Your task to perform on an android device: Search for "bose soundsport free" on walmart.com, select the first entry, and add it to the cart. Image 0: 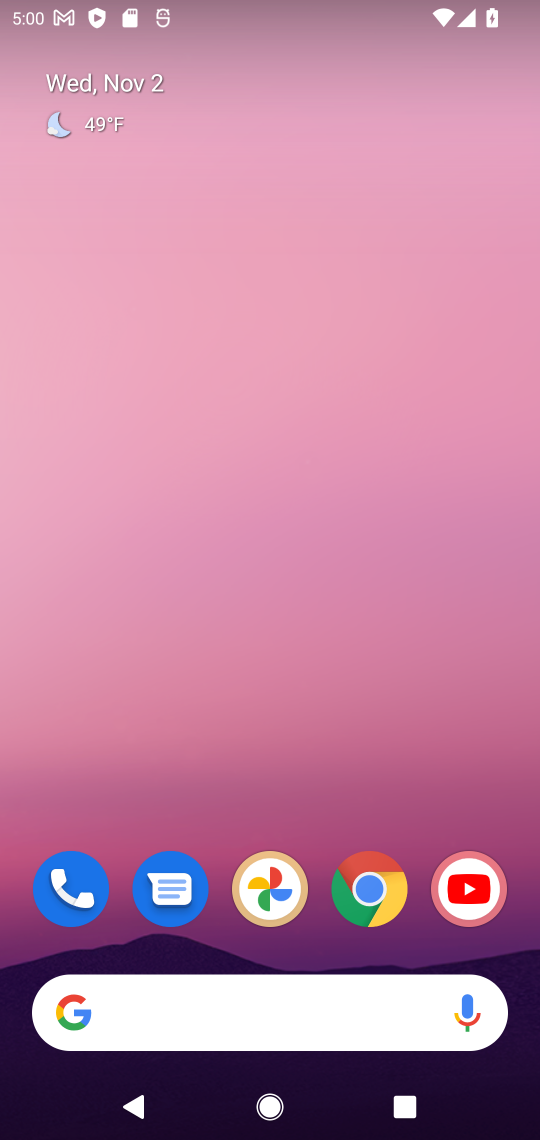
Step 0: click (389, 890)
Your task to perform on an android device: Search for "bose soundsport free" on walmart.com, select the first entry, and add it to the cart. Image 1: 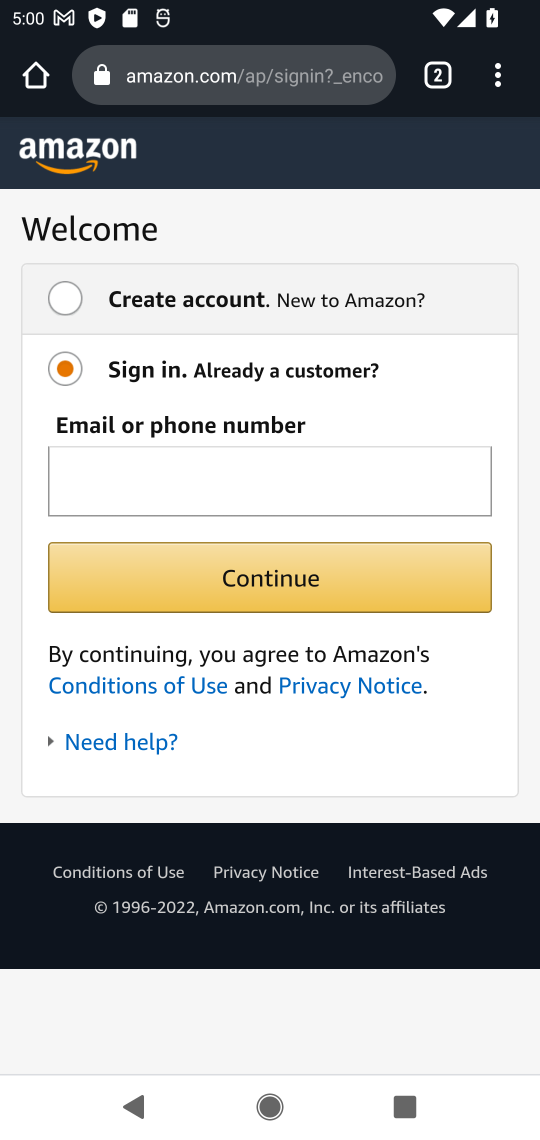
Step 1: click (261, 79)
Your task to perform on an android device: Search for "bose soundsport free" on walmart.com, select the first entry, and add it to the cart. Image 2: 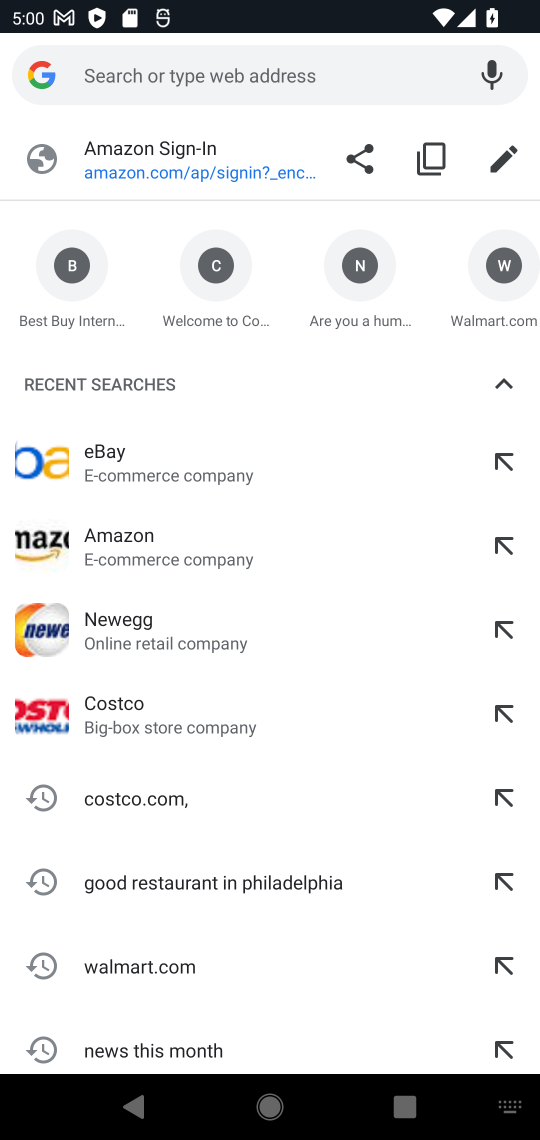
Step 2: click (511, 262)
Your task to perform on an android device: Search for "bose soundsport free" on walmart.com, select the first entry, and add it to the cart. Image 3: 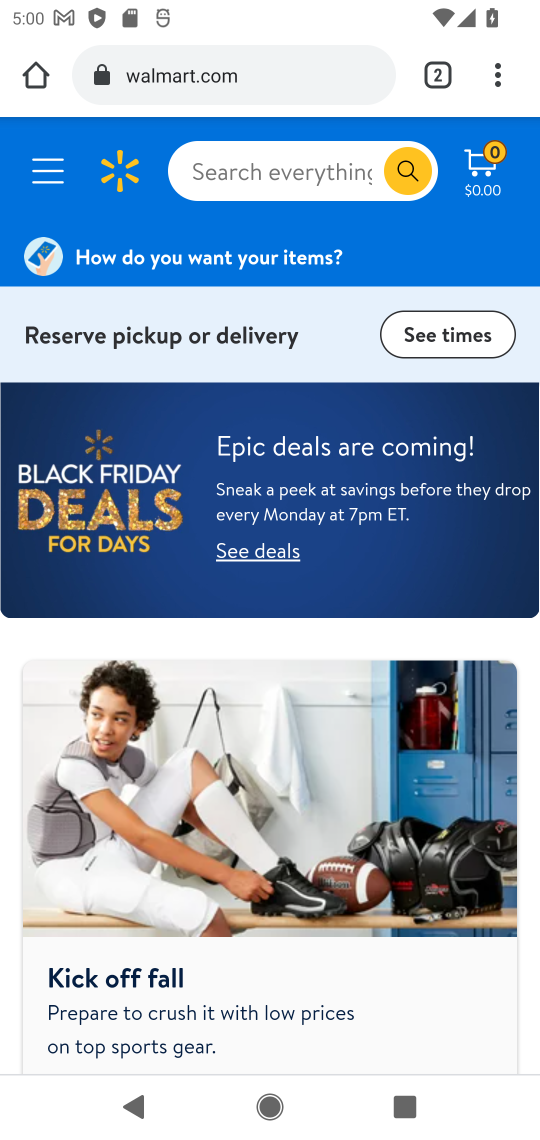
Step 3: click (243, 160)
Your task to perform on an android device: Search for "bose soundsport free" on walmart.com, select the first entry, and add it to the cart. Image 4: 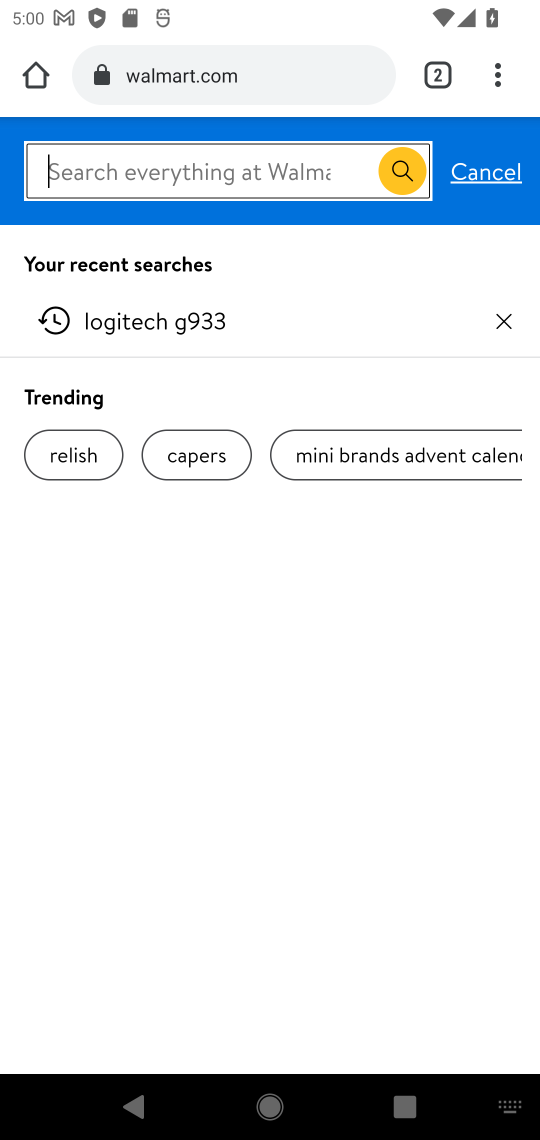
Step 4: type "bose soundsport free"
Your task to perform on an android device: Search for "bose soundsport free" on walmart.com, select the first entry, and add it to the cart. Image 5: 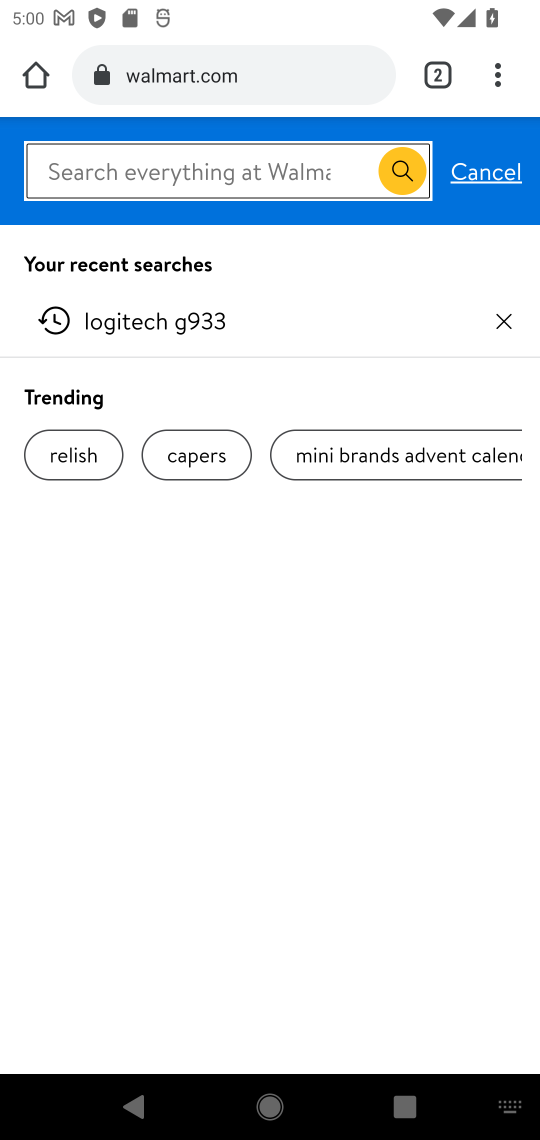
Step 5: press enter
Your task to perform on an android device: Search for "bose soundsport free" on walmart.com, select the first entry, and add it to the cart. Image 6: 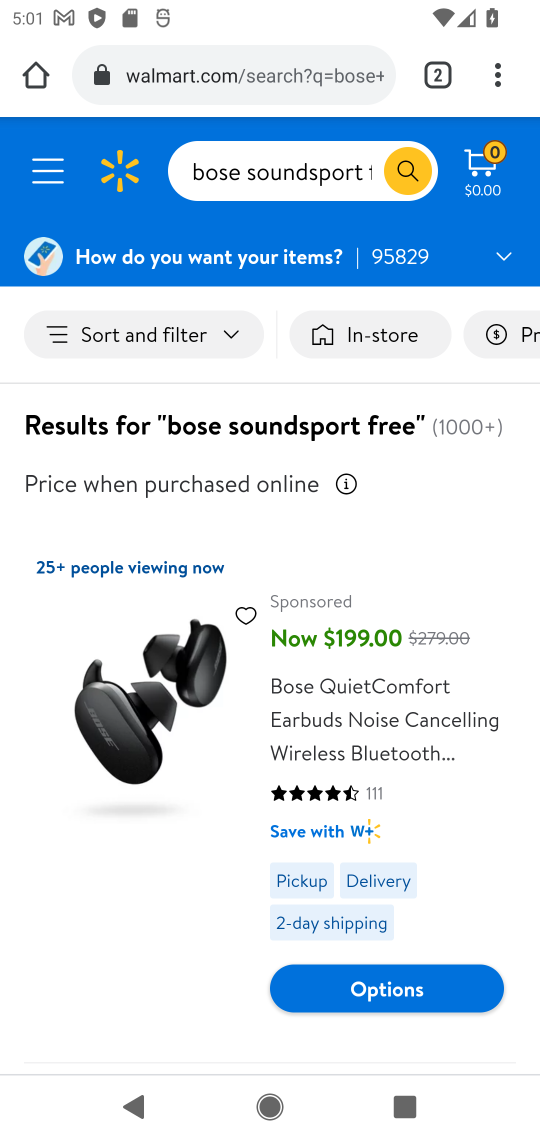
Step 6: click (331, 692)
Your task to perform on an android device: Search for "bose soundsport free" on walmart.com, select the first entry, and add it to the cart. Image 7: 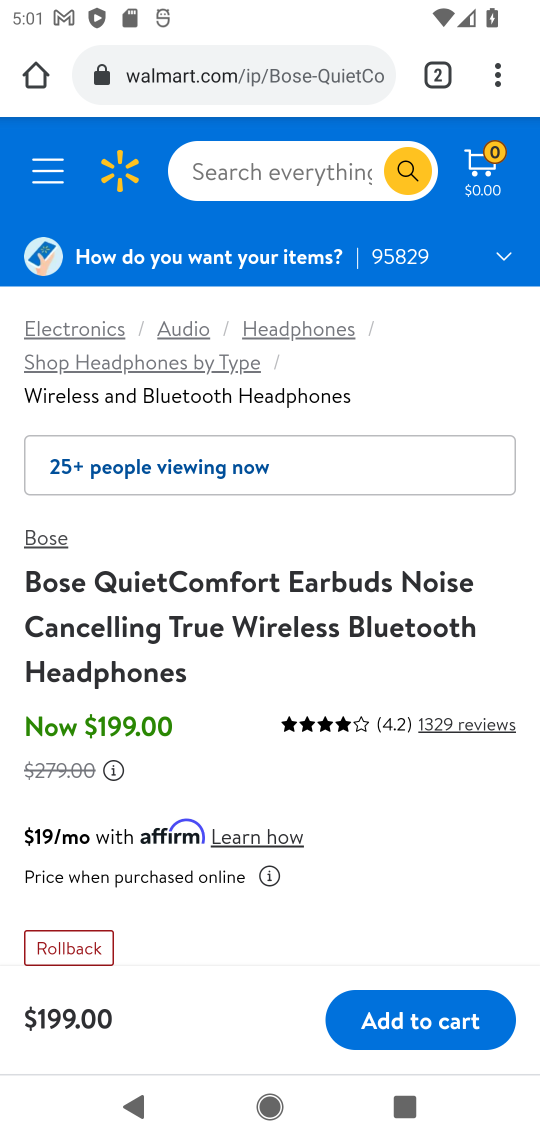
Step 7: click (423, 1019)
Your task to perform on an android device: Search for "bose soundsport free" on walmart.com, select the first entry, and add it to the cart. Image 8: 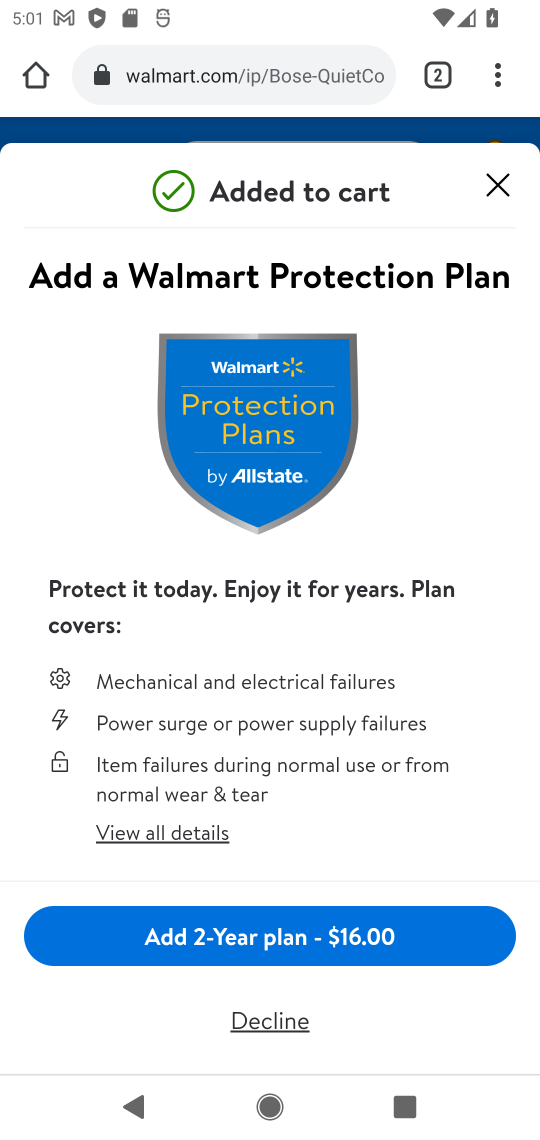
Step 8: click (500, 178)
Your task to perform on an android device: Search for "bose soundsport free" on walmart.com, select the first entry, and add it to the cart. Image 9: 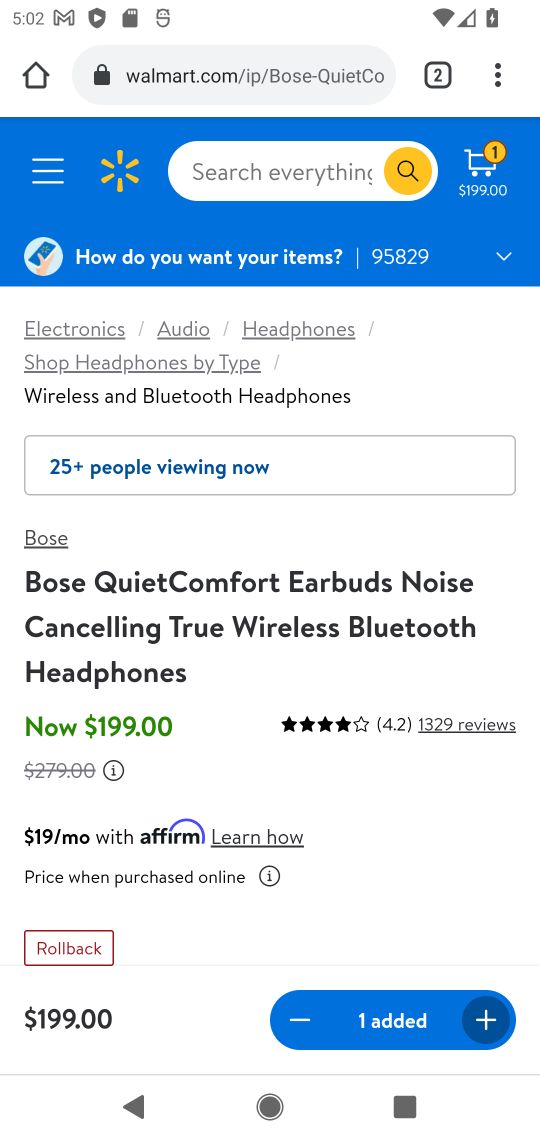
Step 9: task complete